Your task to perform on an android device: Open calendar and show me the third week of next month Image 0: 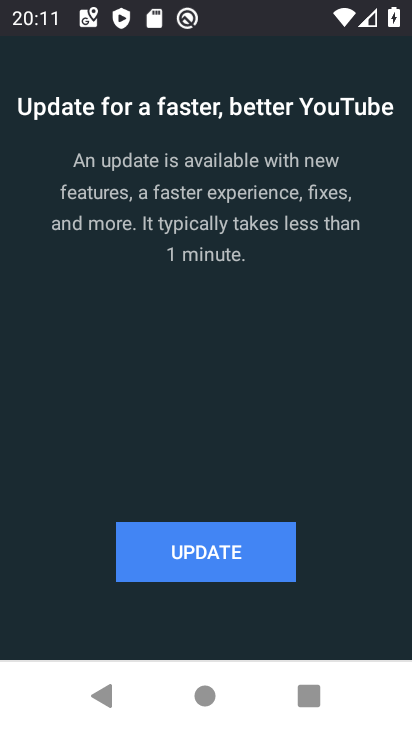
Step 0: press home button
Your task to perform on an android device: Open calendar and show me the third week of next month Image 1: 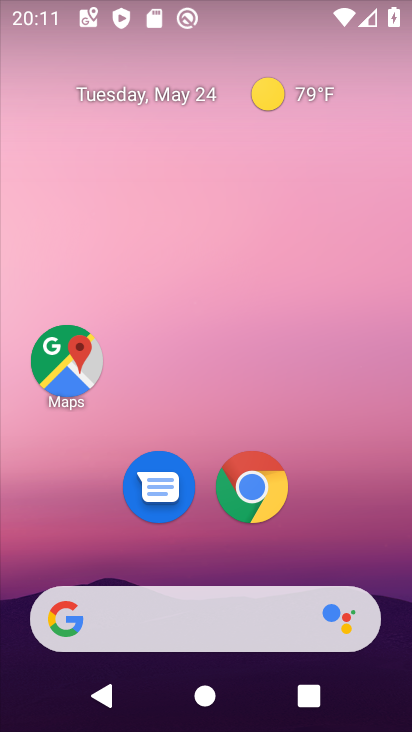
Step 1: drag from (2, 685) to (227, 113)
Your task to perform on an android device: Open calendar and show me the third week of next month Image 2: 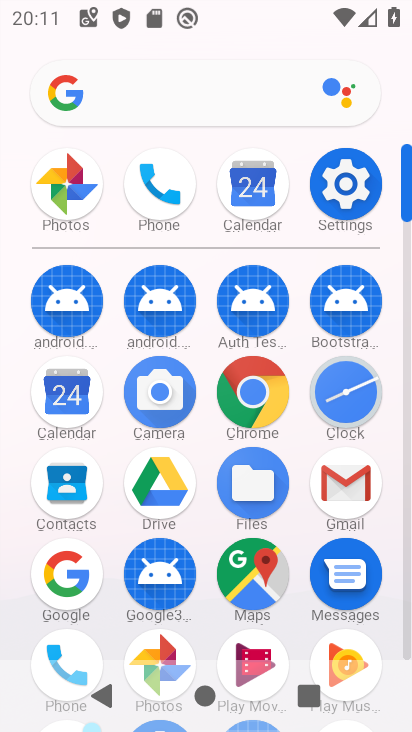
Step 2: click (63, 416)
Your task to perform on an android device: Open calendar and show me the third week of next month Image 3: 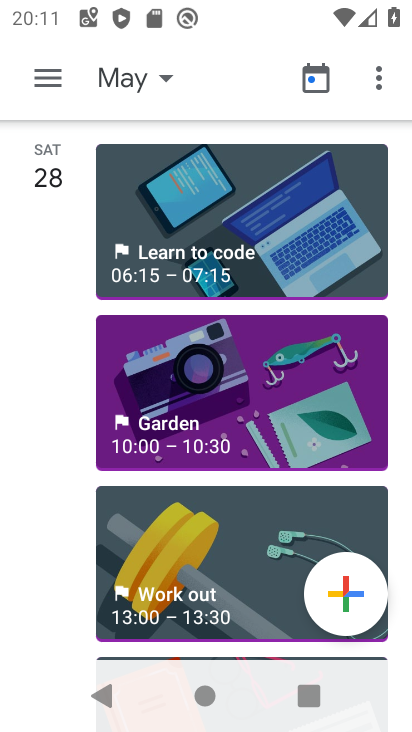
Step 3: click (146, 80)
Your task to perform on an android device: Open calendar and show me the third week of next month Image 4: 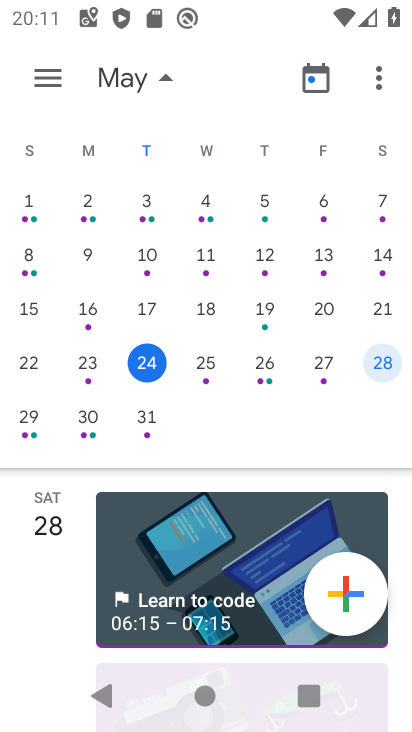
Step 4: drag from (298, 360) to (1, 321)
Your task to perform on an android device: Open calendar and show me the third week of next month Image 5: 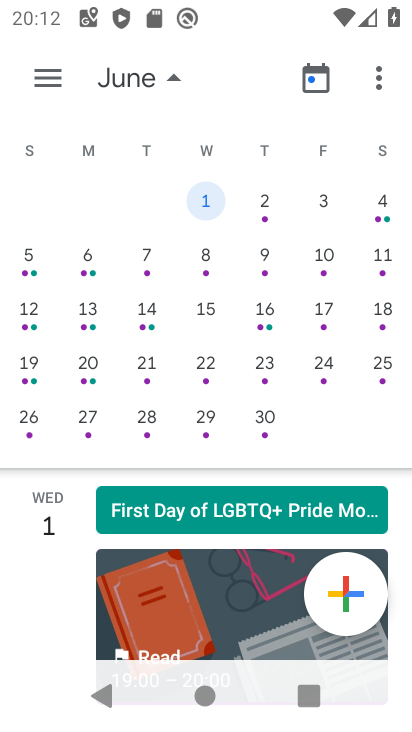
Step 5: click (214, 254)
Your task to perform on an android device: Open calendar and show me the third week of next month Image 6: 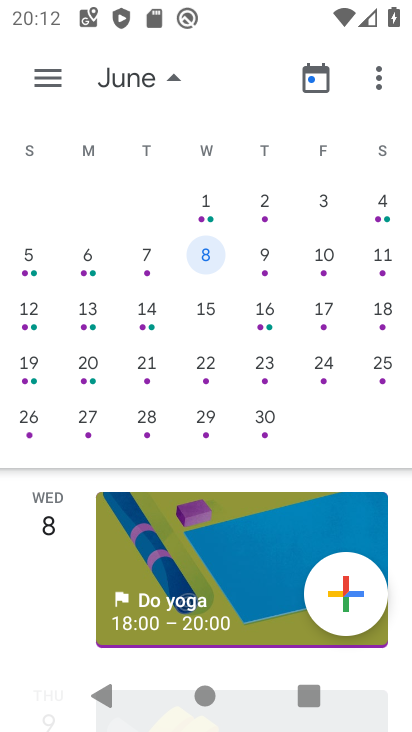
Step 6: click (202, 306)
Your task to perform on an android device: Open calendar and show me the third week of next month Image 7: 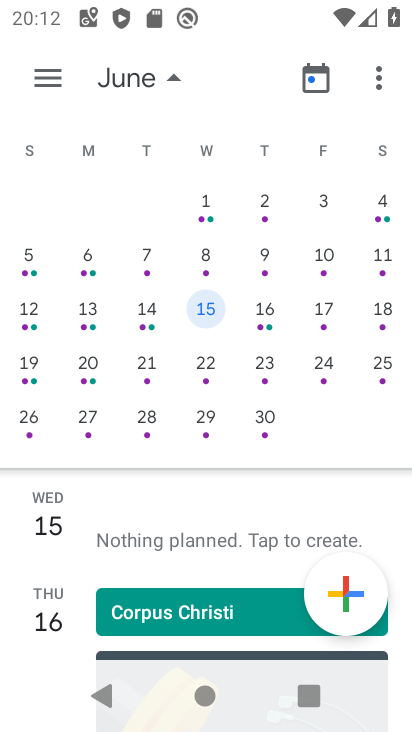
Step 7: task complete